Your task to perform on an android device: What's the weather going to be tomorrow? Image 0: 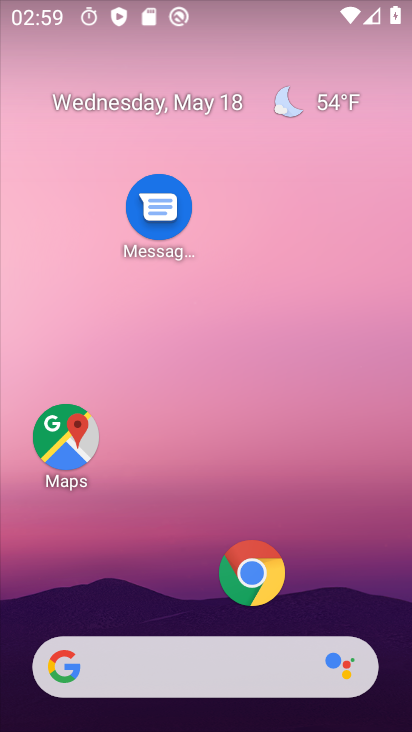
Step 0: drag from (179, 582) to (221, 242)
Your task to perform on an android device: What's the weather going to be tomorrow? Image 1: 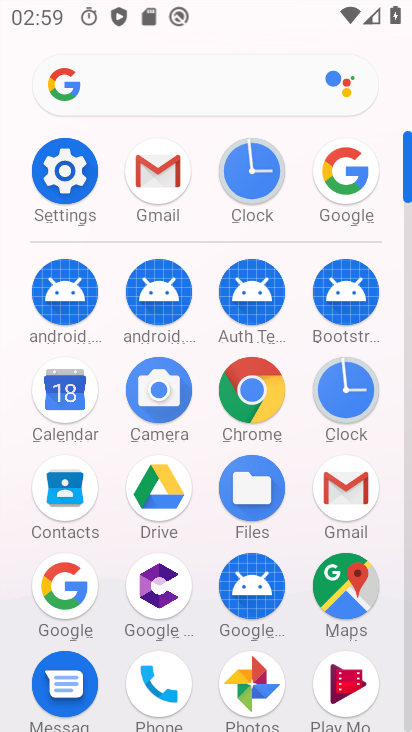
Step 1: click (73, 561)
Your task to perform on an android device: What's the weather going to be tomorrow? Image 2: 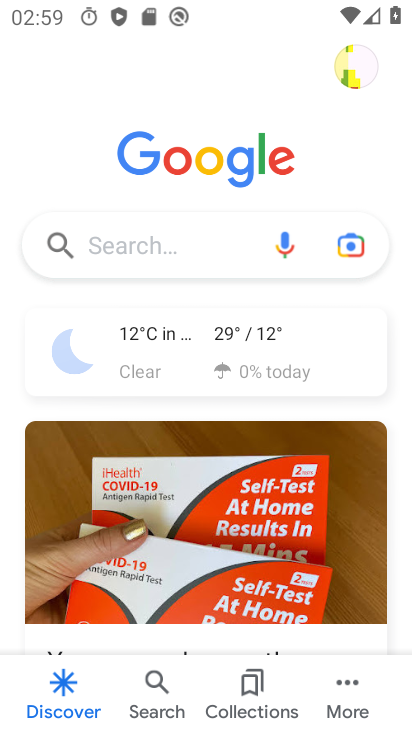
Step 2: click (129, 252)
Your task to perform on an android device: What's the weather going to be tomorrow? Image 3: 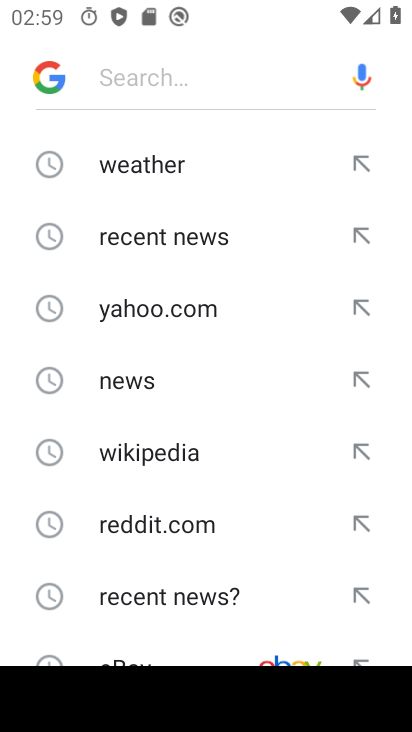
Step 3: click (164, 177)
Your task to perform on an android device: What's the weather going to be tomorrow? Image 4: 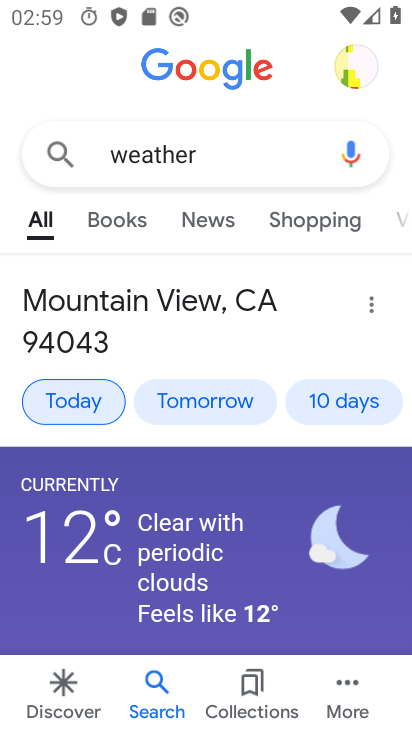
Step 4: click (190, 405)
Your task to perform on an android device: What's the weather going to be tomorrow? Image 5: 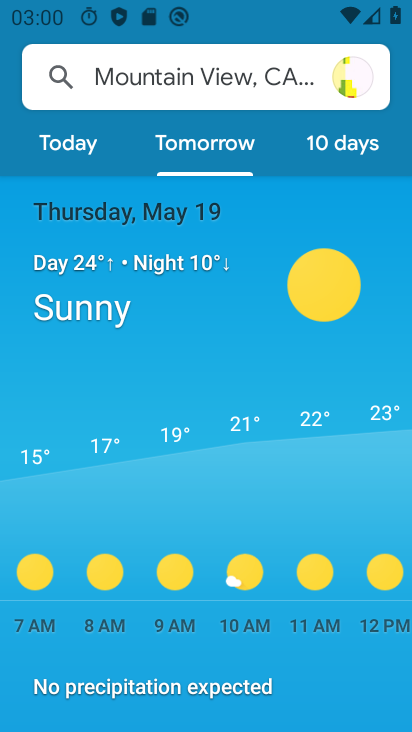
Step 5: task complete